Your task to perform on an android device: Open location settings Image 0: 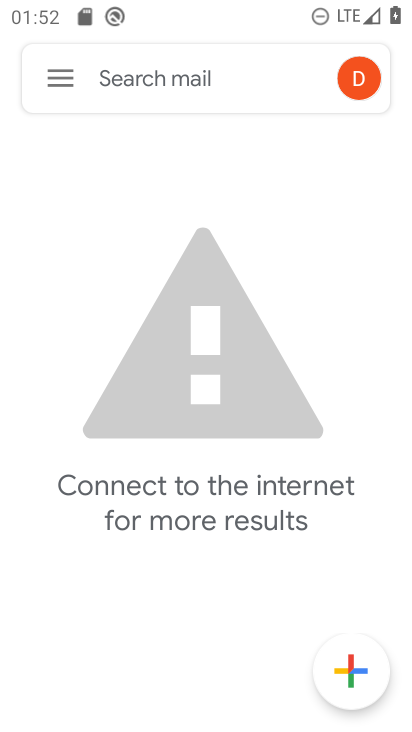
Step 0: press home button
Your task to perform on an android device: Open location settings Image 1: 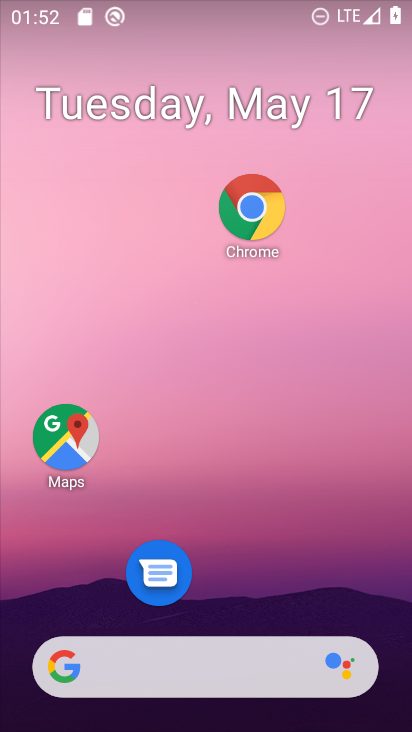
Step 1: drag from (296, 640) to (349, 5)
Your task to perform on an android device: Open location settings Image 2: 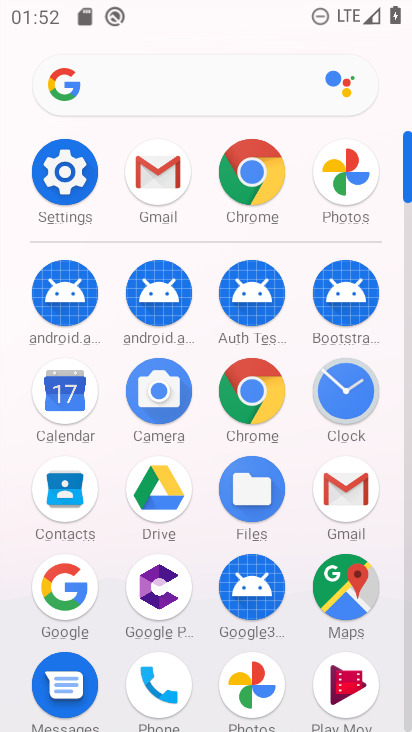
Step 2: drag from (298, 626) to (314, 248)
Your task to perform on an android device: Open location settings Image 3: 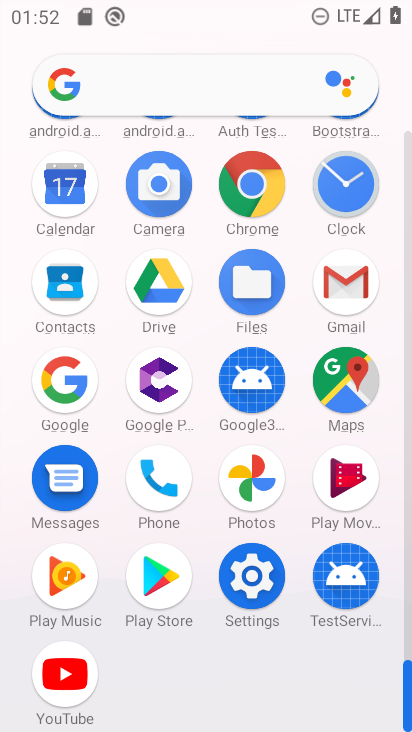
Step 3: click (252, 579)
Your task to perform on an android device: Open location settings Image 4: 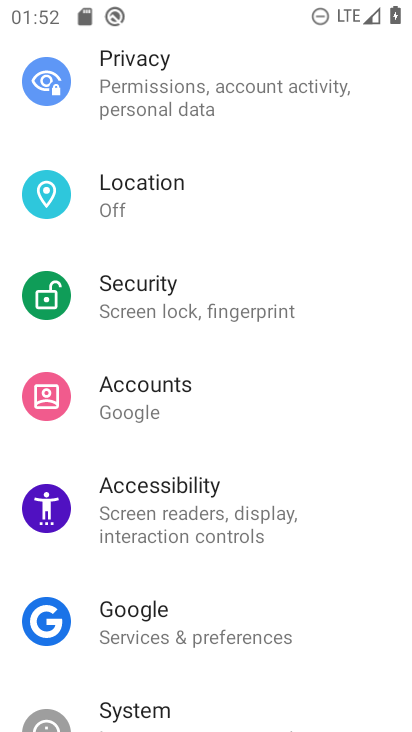
Step 4: click (151, 196)
Your task to perform on an android device: Open location settings Image 5: 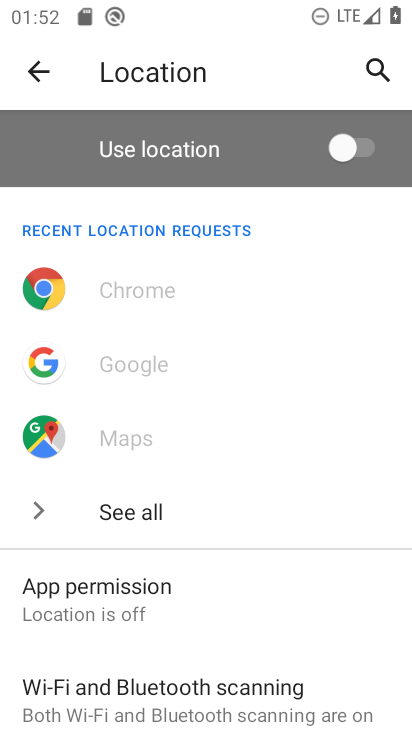
Step 5: task complete